Your task to perform on an android device: Open display settings Image 0: 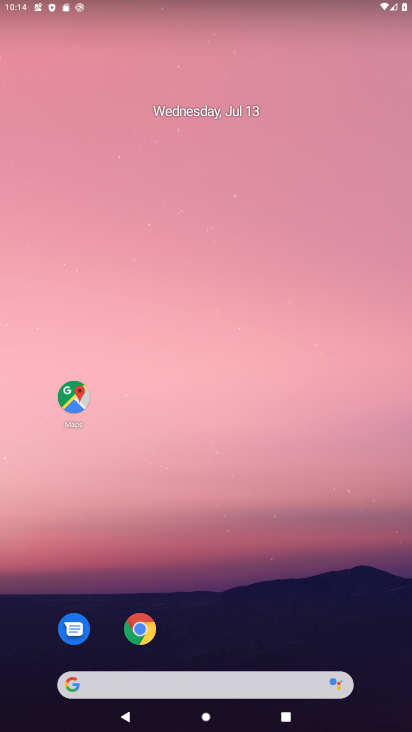
Step 0: press home button
Your task to perform on an android device: Open display settings Image 1: 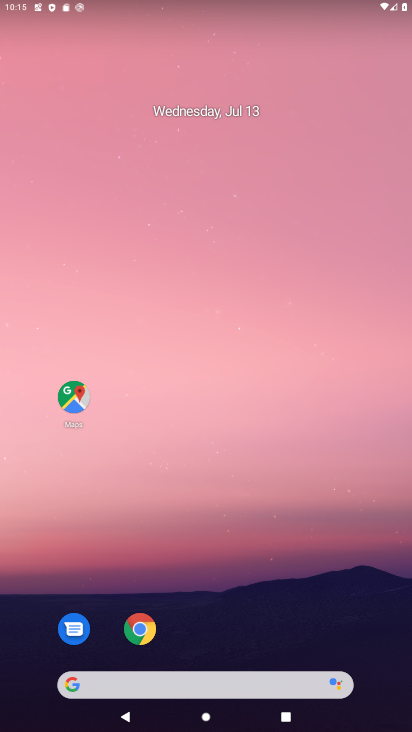
Step 1: drag from (217, 621) to (119, 68)
Your task to perform on an android device: Open display settings Image 2: 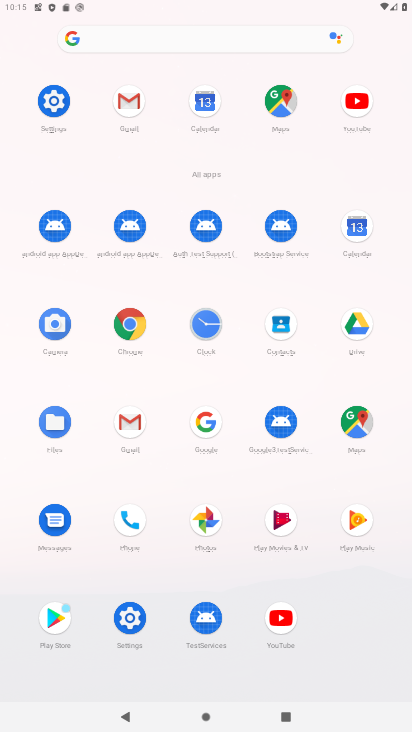
Step 2: click (51, 96)
Your task to perform on an android device: Open display settings Image 3: 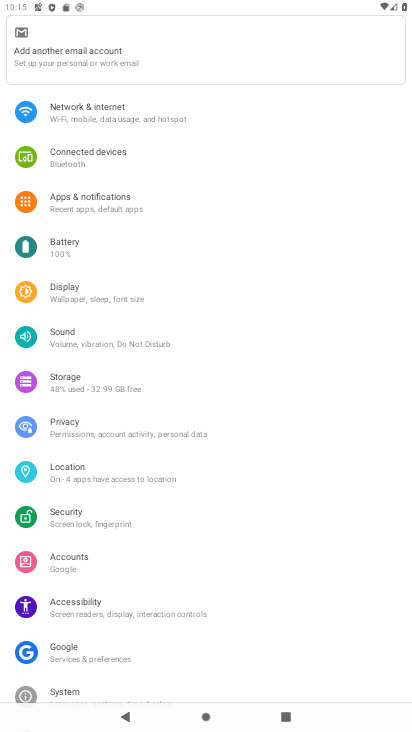
Step 3: click (88, 288)
Your task to perform on an android device: Open display settings Image 4: 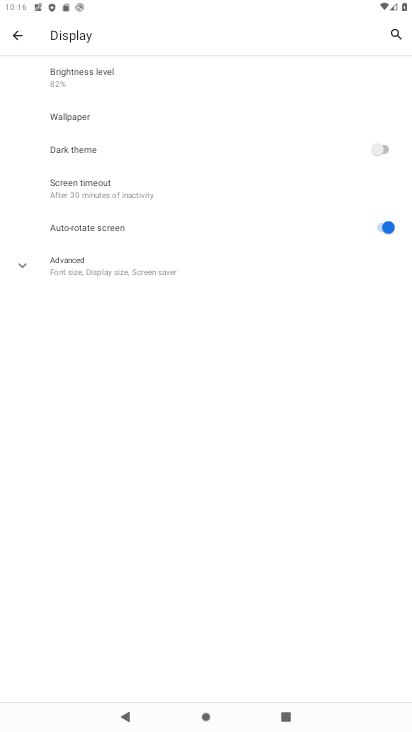
Step 4: click (22, 262)
Your task to perform on an android device: Open display settings Image 5: 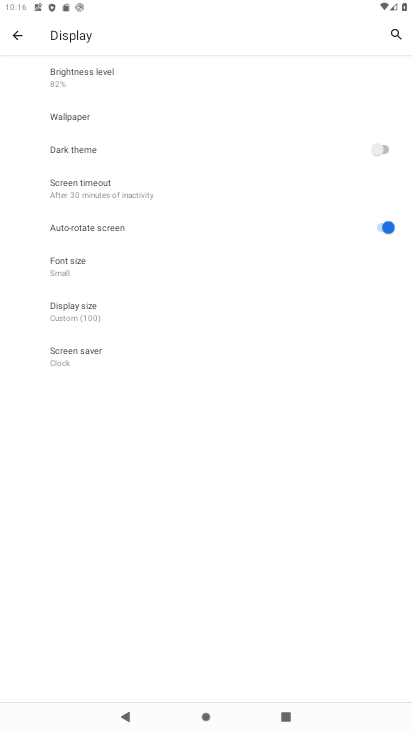
Step 5: task complete